Your task to perform on an android device: turn off notifications in google photos Image 0: 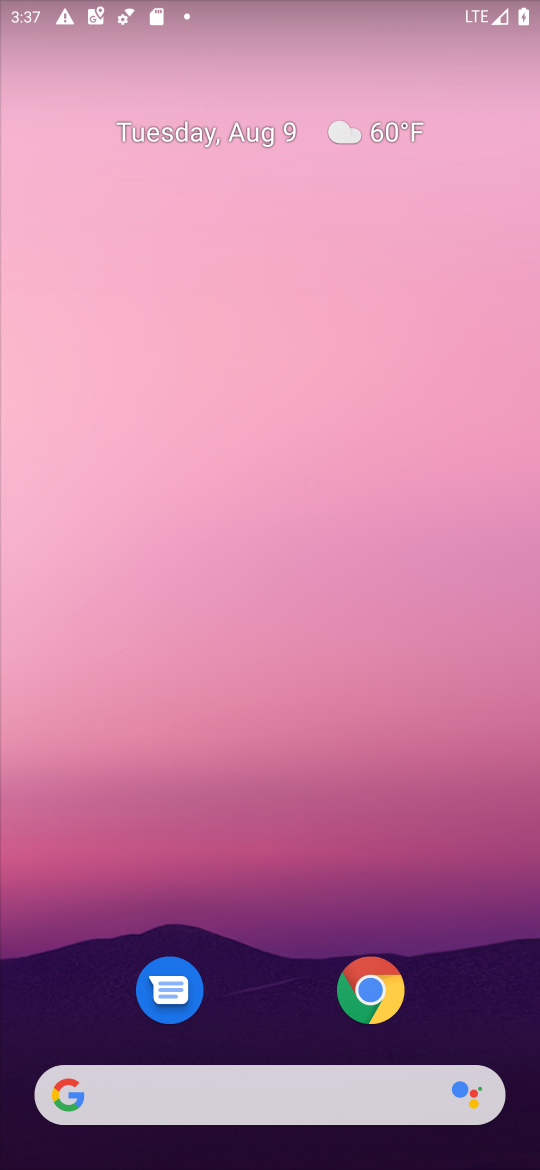
Step 0: drag from (245, 1074) to (280, 9)
Your task to perform on an android device: turn off notifications in google photos Image 1: 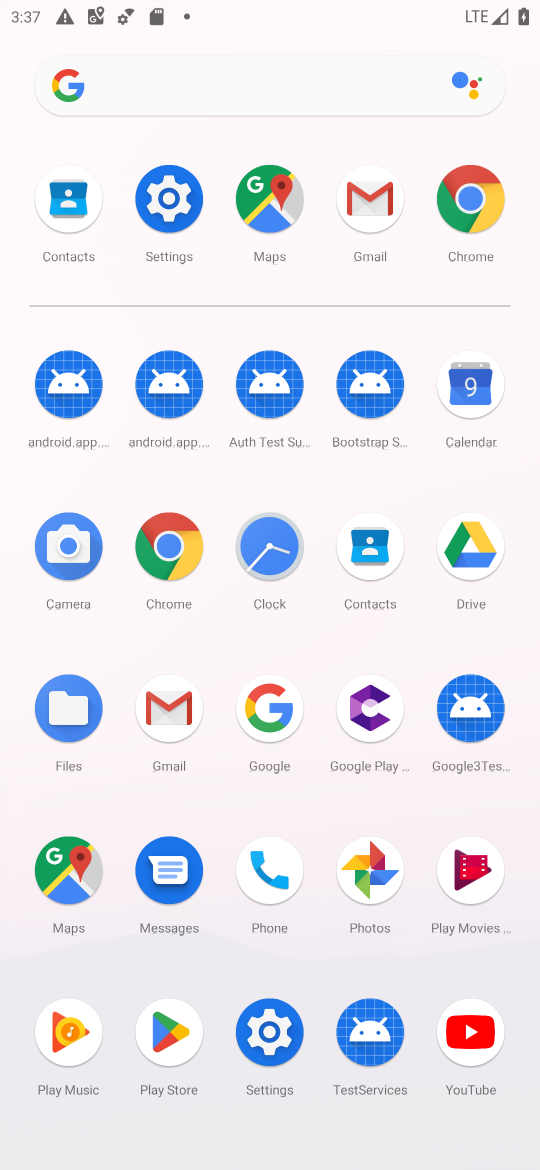
Step 1: click (310, 821)
Your task to perform on an android device: turn off notifications in google photos Image 2: 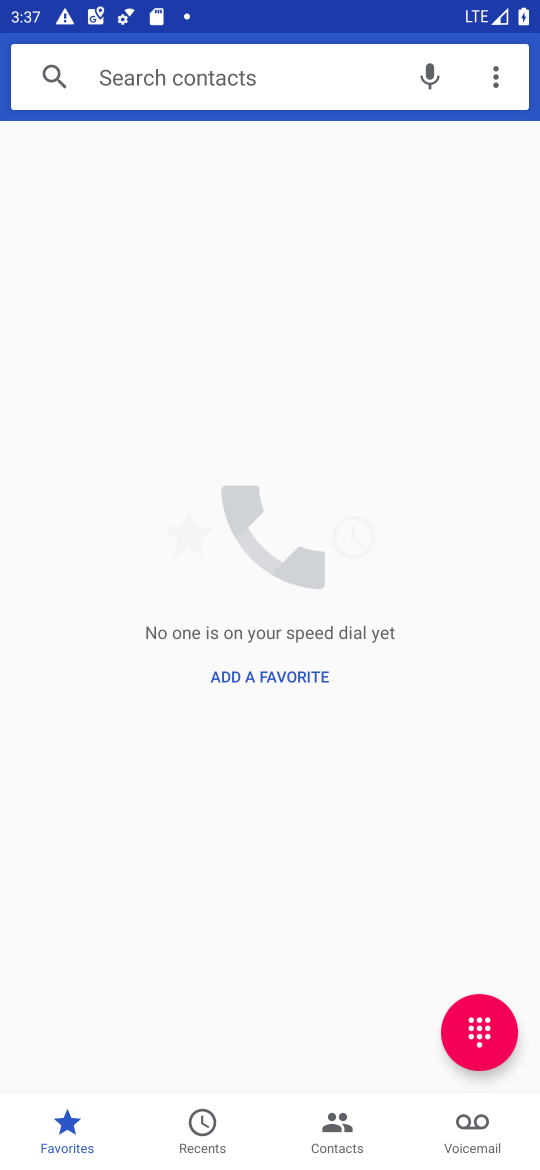
Step 2: press home button
Your task to perform on an android device: turn off notifications in google photos Image 3: 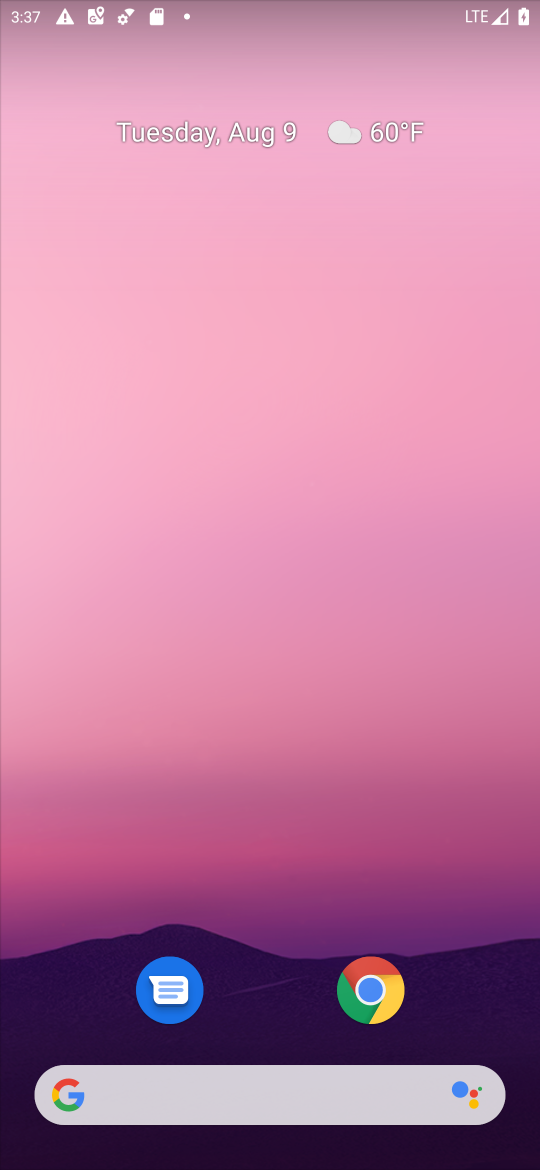
Step 3: drag from (304, 1113) to (531, 851)
Your task to perform on an android device: turn off notifications in google photos Image 4: 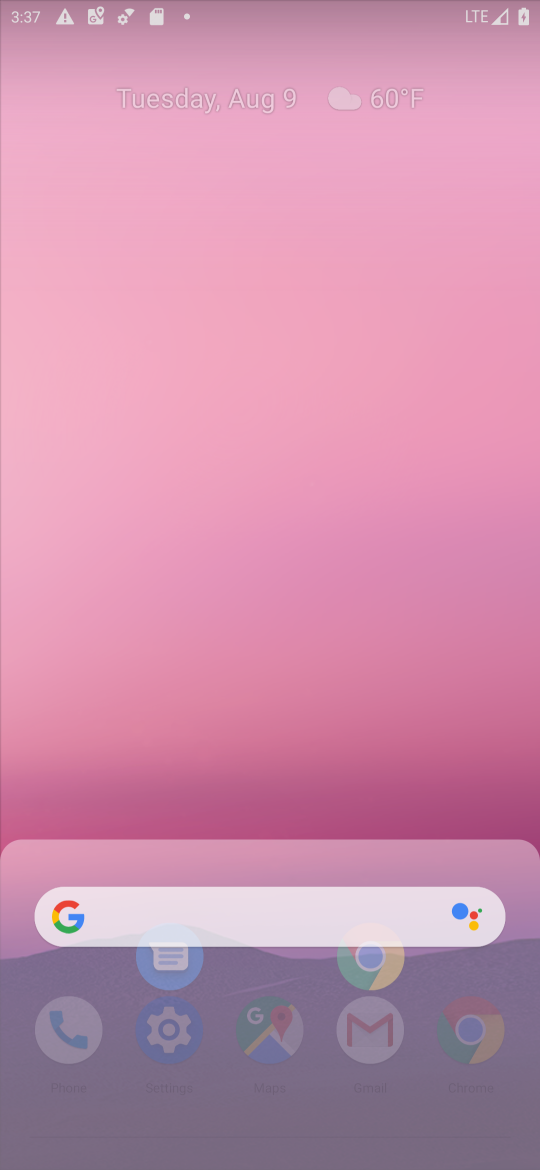
Step 4: click (383, 869)
Your task to perform on an android device: turn off notifications in google photos Image 5: 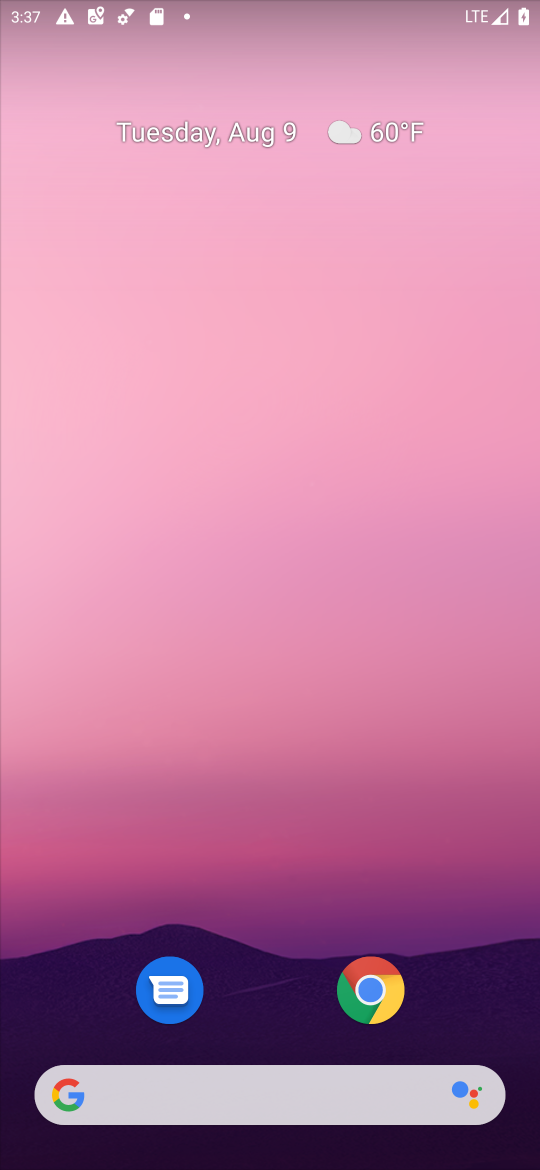
Step 5: drag from (288, 1067) to (349, 30)
Your task to perform on an android device: turn off notifications in google photos Image 6: 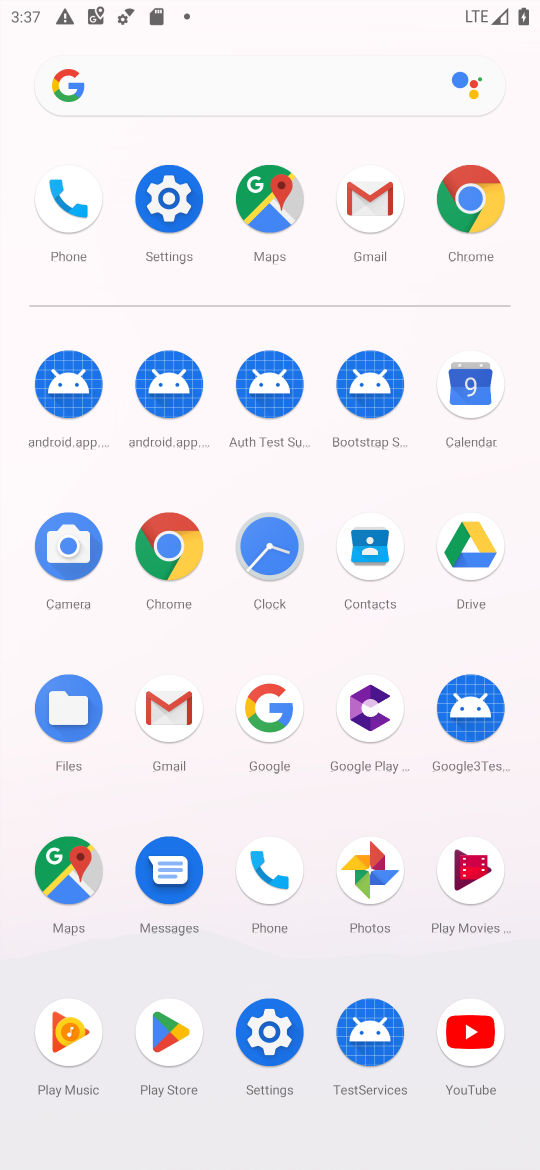
Step 6: click (356, 875)
Your task to perform on an android device: turn off notifications in google photos Image 7: 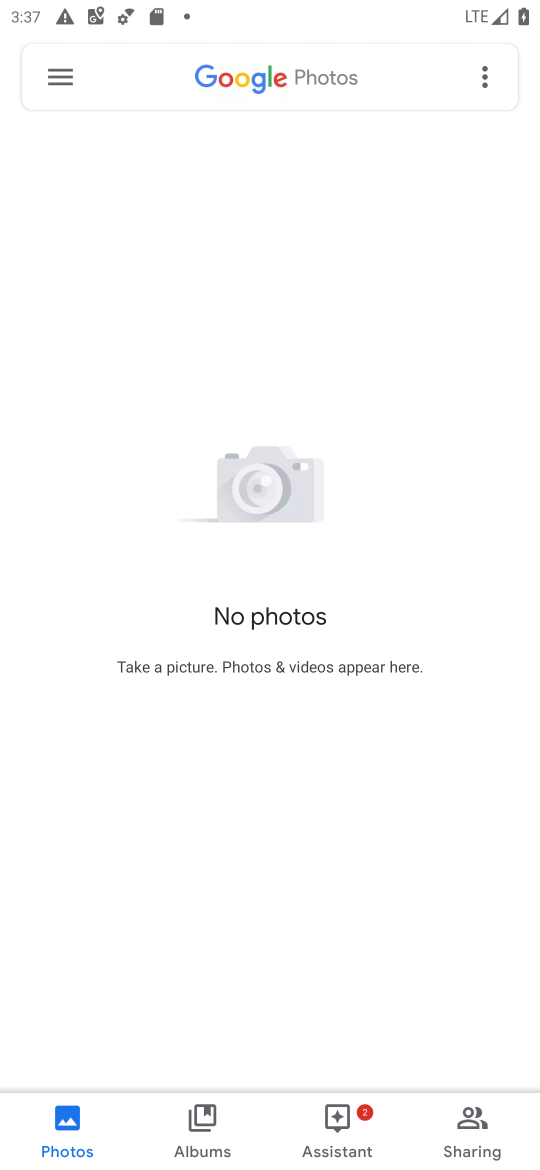
Step 7: click (56, 72)
Your task to perform on an android device: turn off notifications in google photos Image 8: 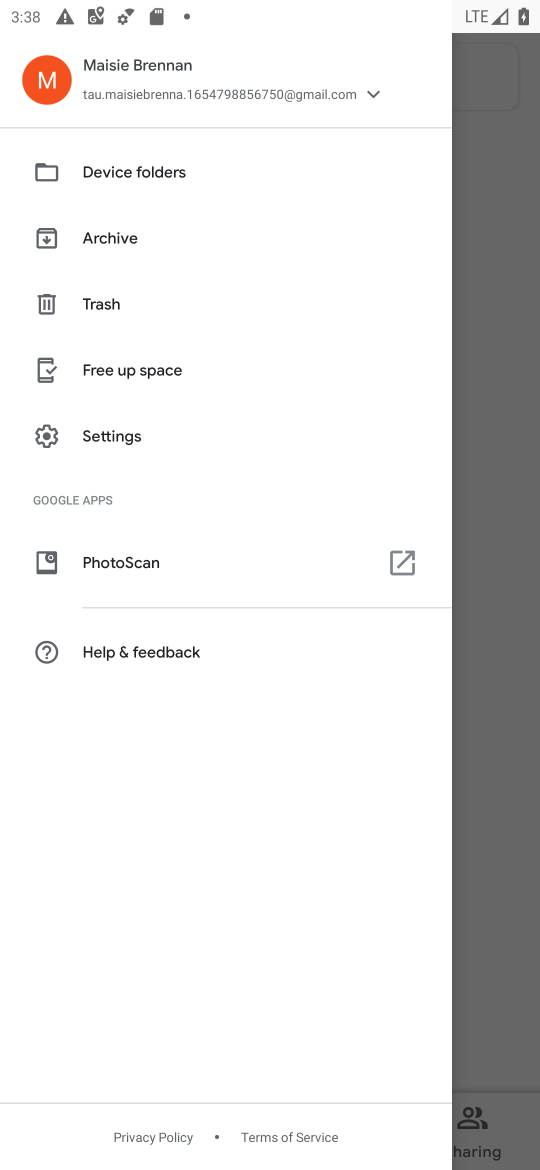
Step 8: click (127, 447)
Your task to perform on an android device: turn off notifications in google photos Image 9: 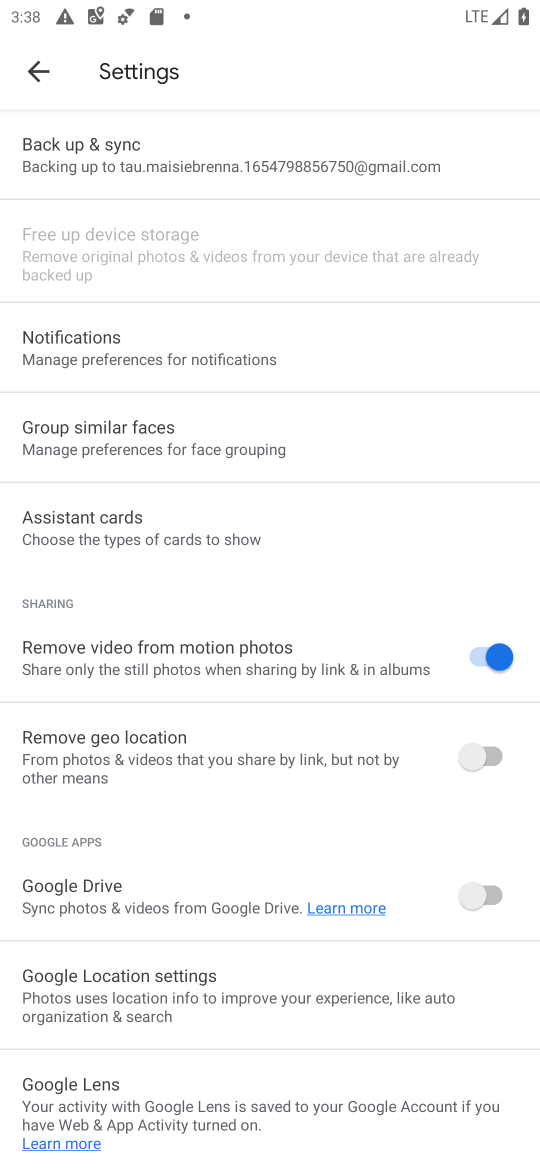
Step 9: task complete